Your task to perform on an android device: turn off wifi Image 0: 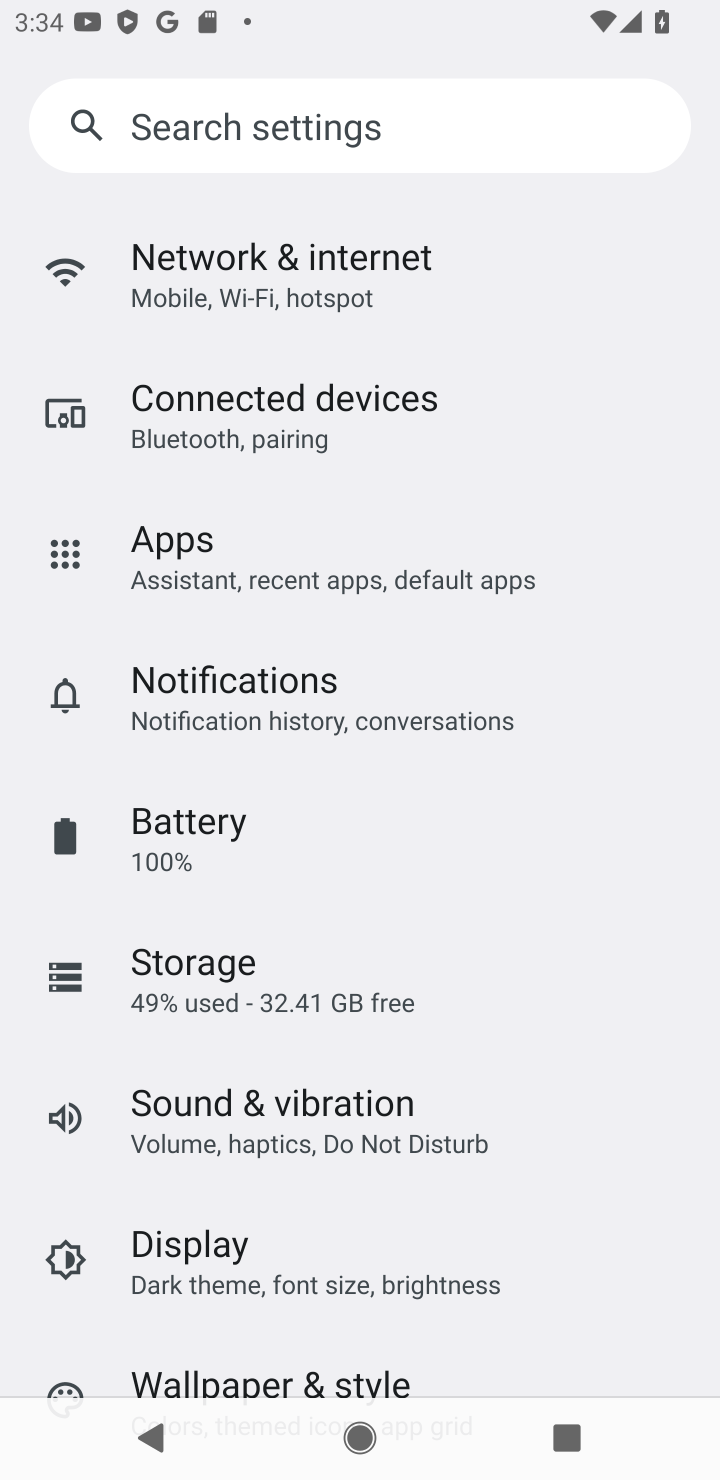
Step 0: click (301, 294)
Your task to perform on an android device: turn off wifi Image 1: 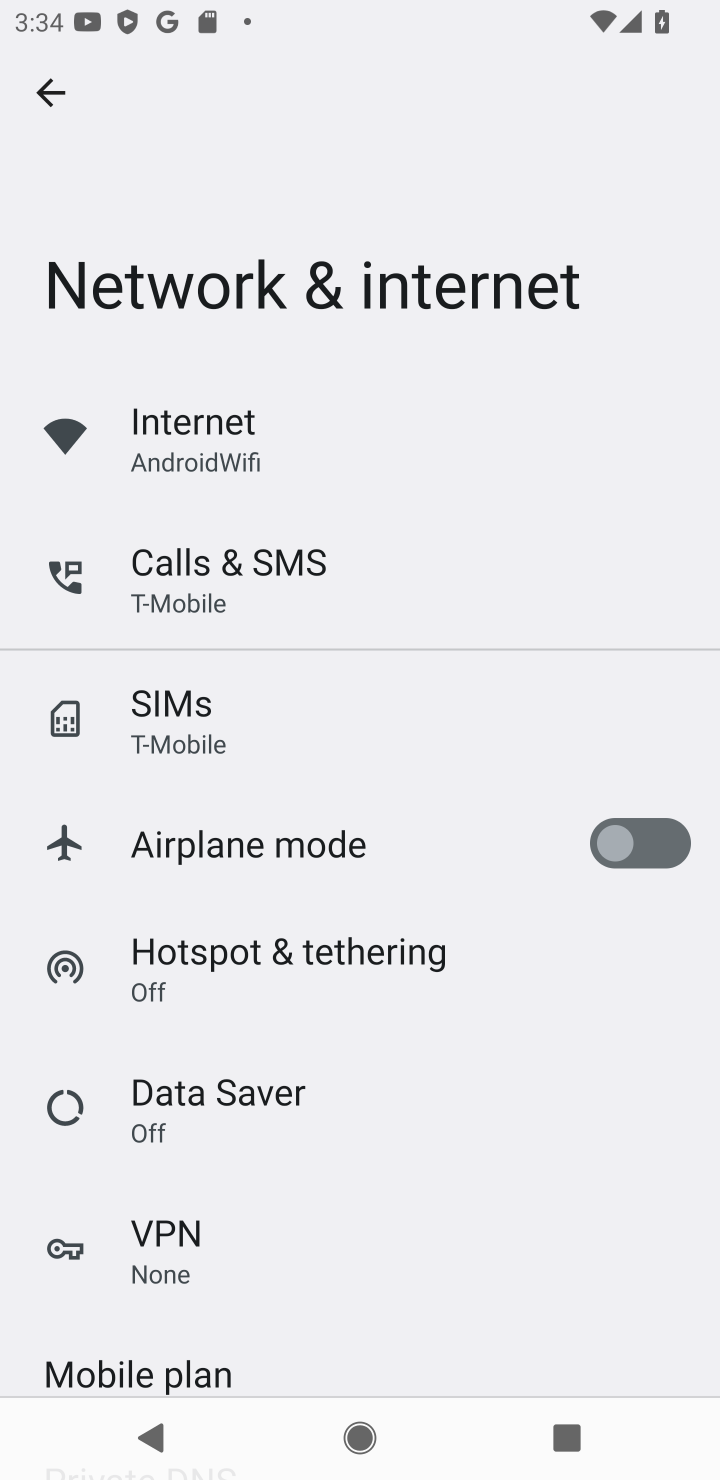
Step 1: click (206, 450)
Your task to perform on an android device: turn off wifi Image 2: 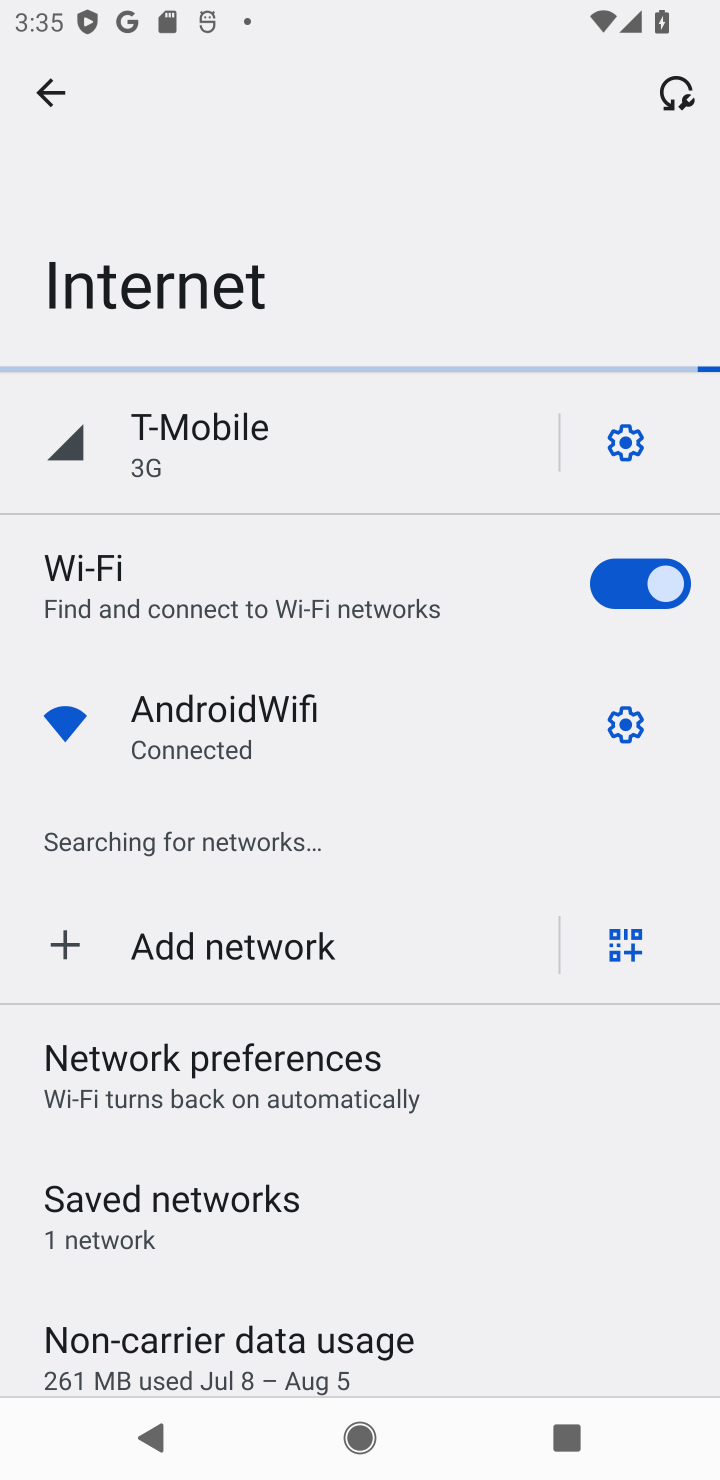
Step 2: click (671, 581)
Your task to perform on an android device: turn off wifi Image 3: 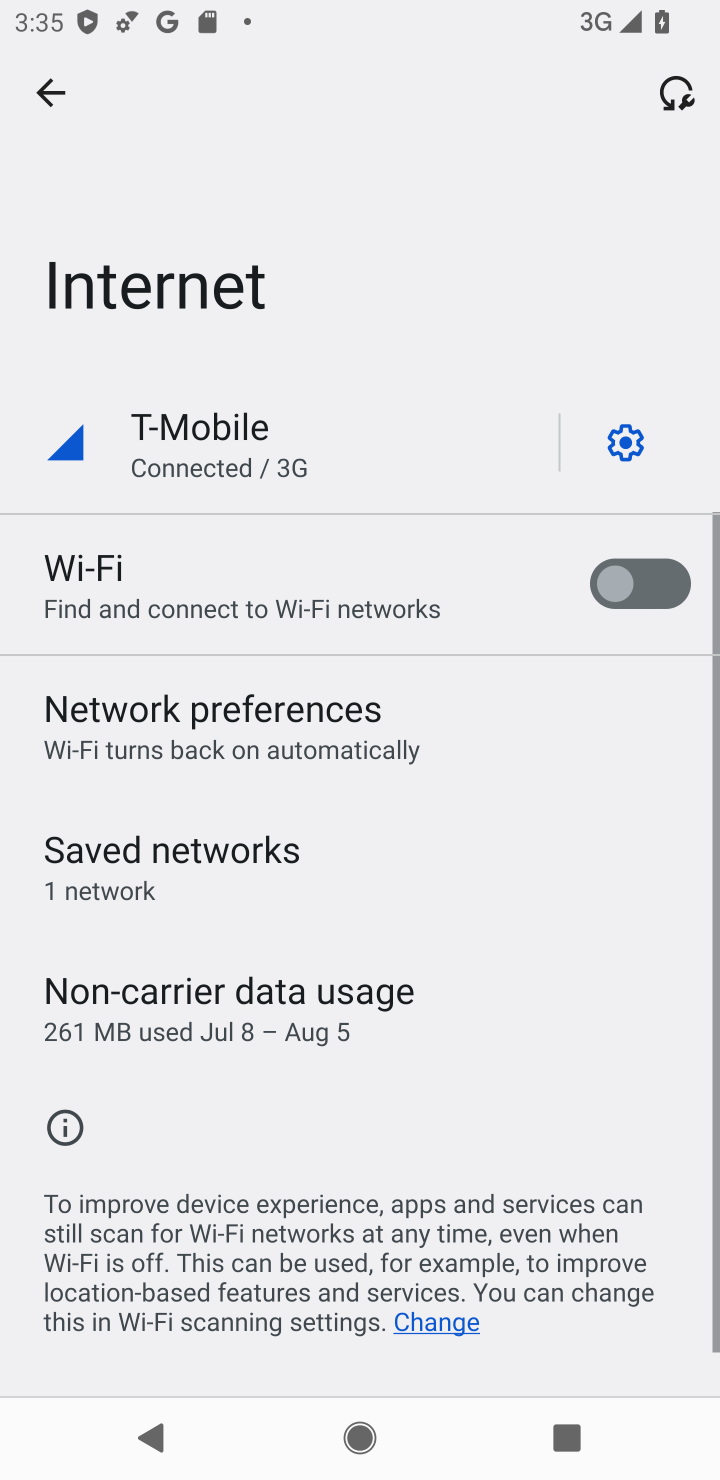
Step 3: task complete